Your task to perform on an android device: add a label to a message in the gmail app Image 0: 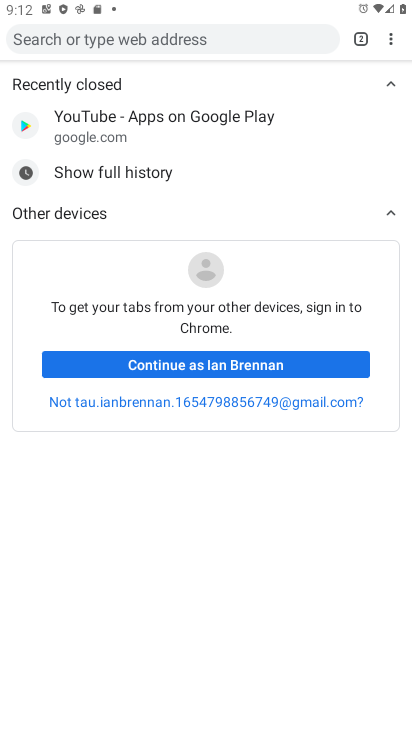
Step 0: press back button
Your task to perform on an android device: add a label to a message in the gmail app Image 1: 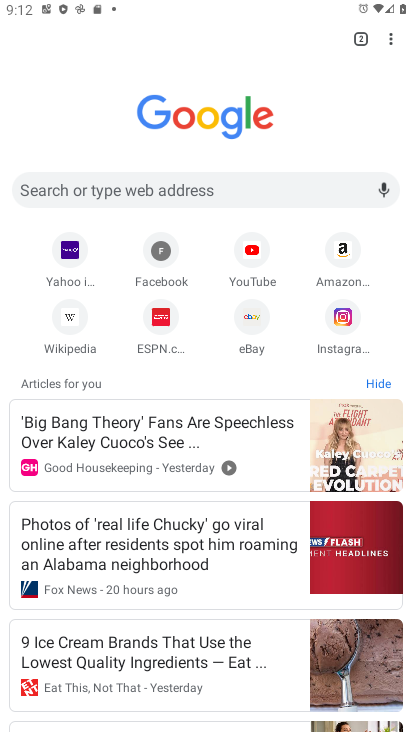
Step 1: press back button
Your task to perform on an android device: add a label to a message in the gmail app Image 2: 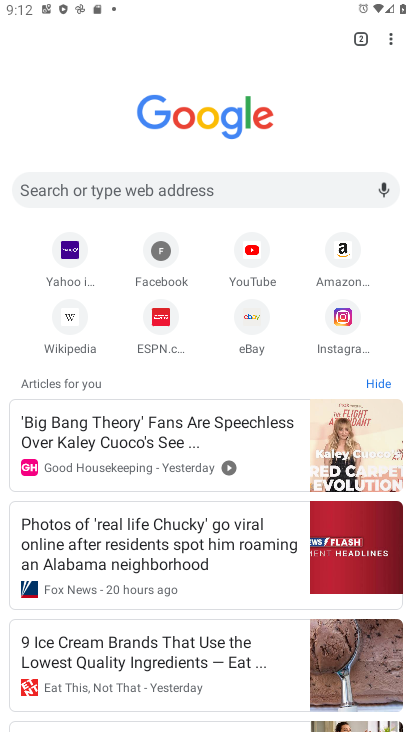
Step 2: press back button
Your task to perform on an android device: add a label to a message in the gmail app Image 3: 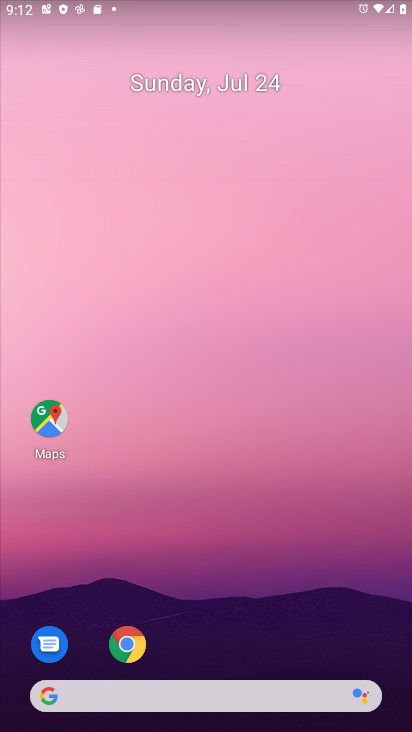
Step 3: drag from (255, 701) to (274, 156)
Your task to perform on an android device: add a label to a message in the gmail app Image 4: 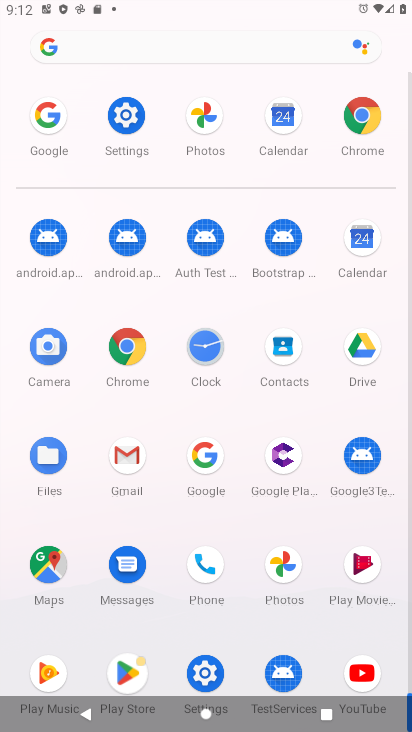
Step 4: click (129, 455)
Your task to perform on an android device: add a label to a message in the gmail app Image 5: 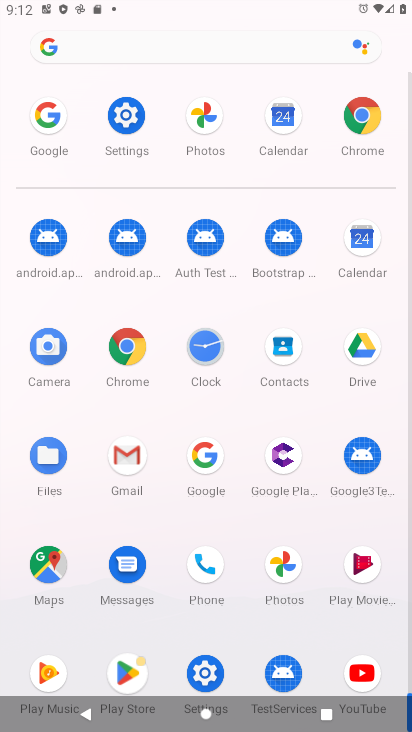
Step 5: click (133, 457)
Your task to perform on an android device: add a label to a message in the gmail app Image 6: 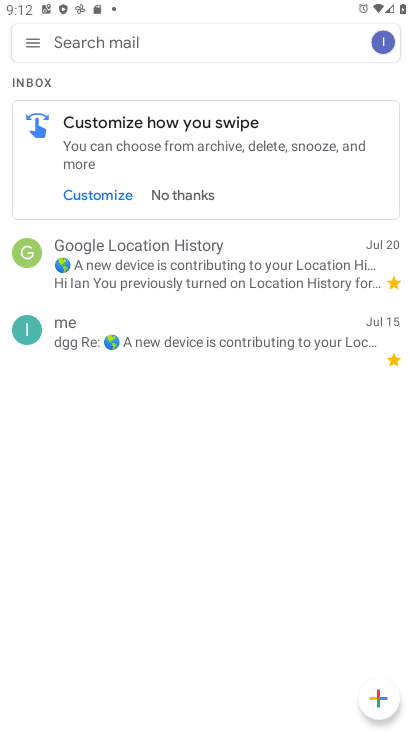
Step 6: click (388, 272)
Your task to perform on an android device: add a label to a message in the gmail app Image 7: 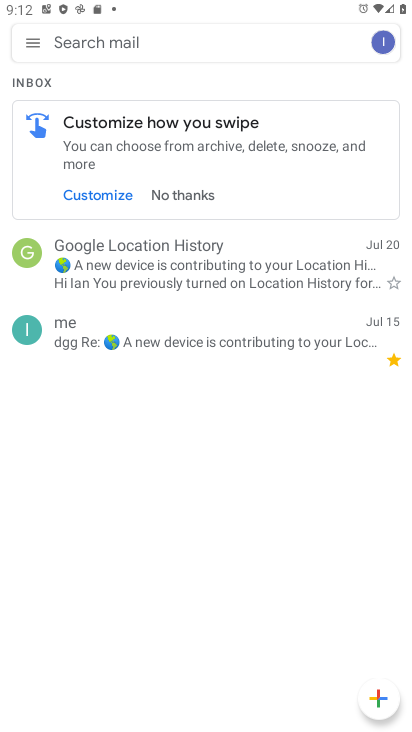
Step 7: task complete